Your task to perform on an android device: Go to Android settings Image 0: 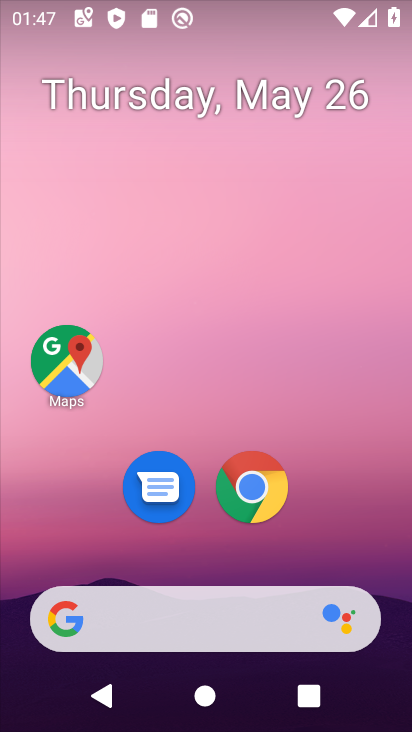
Step 0: drag from (204, 618) to (277, 41)
Your task to perform on an android device: Go to Android settings Image 1: 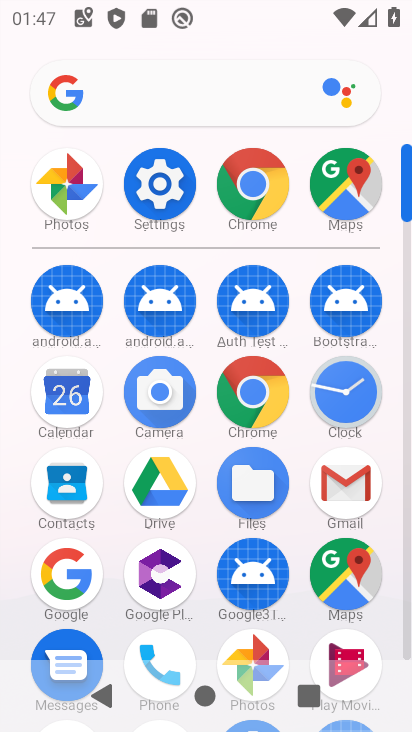
Step 1: click (139, 184)
Your task to perform on an android device: Go to Android settings Image 2: 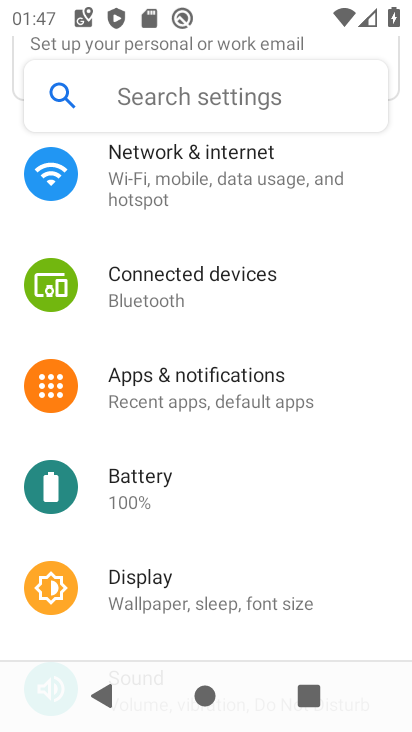
Step 2: task complete